Your task to perform on an android device: Search for "acer nitro" on costco, select the first entry, add it to the cart, then select checkout. Image 0: 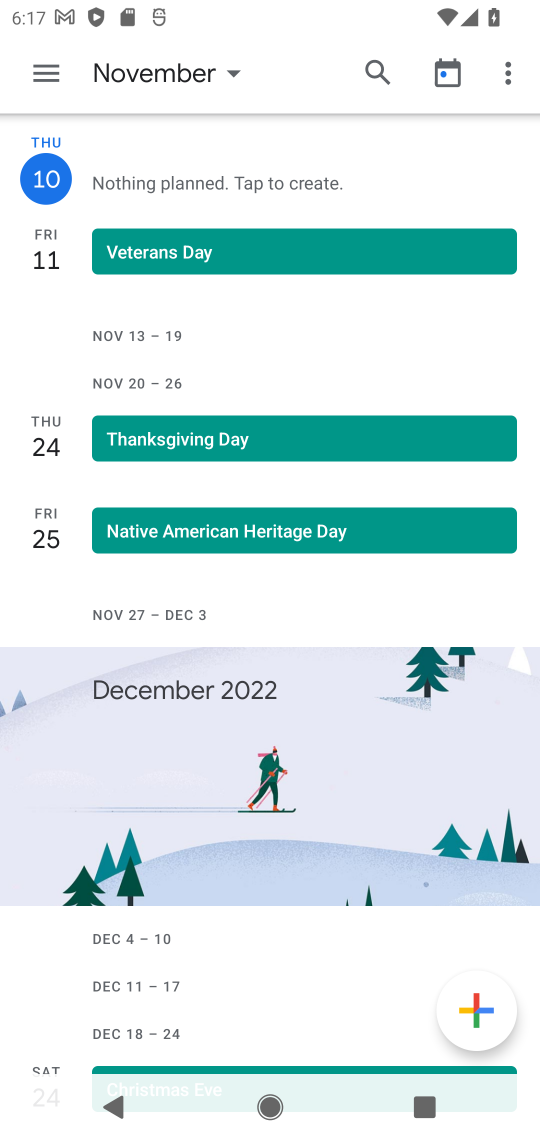
Step 0: press home button
Your task to perform on an android device: Search for "acer nitro" on costco, select the first entry, add it to the cart, then select checkout. Image 1: 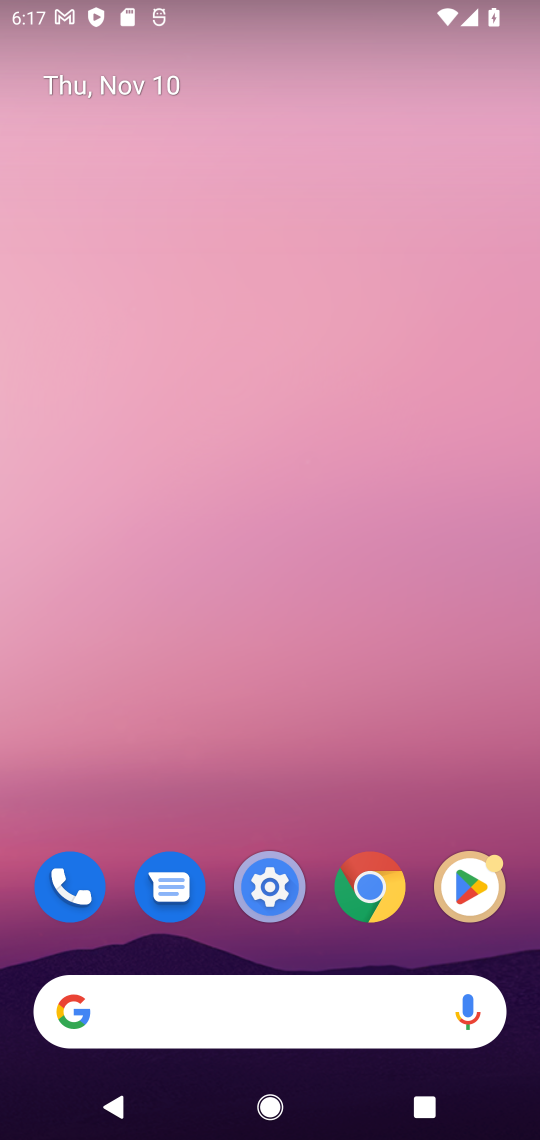
Step 1: click (150, 1004)
Your task to perform on an android device: Search for "acer nitro" on costco, select the first entry, add it to the cart, then select checkout. Image 2: 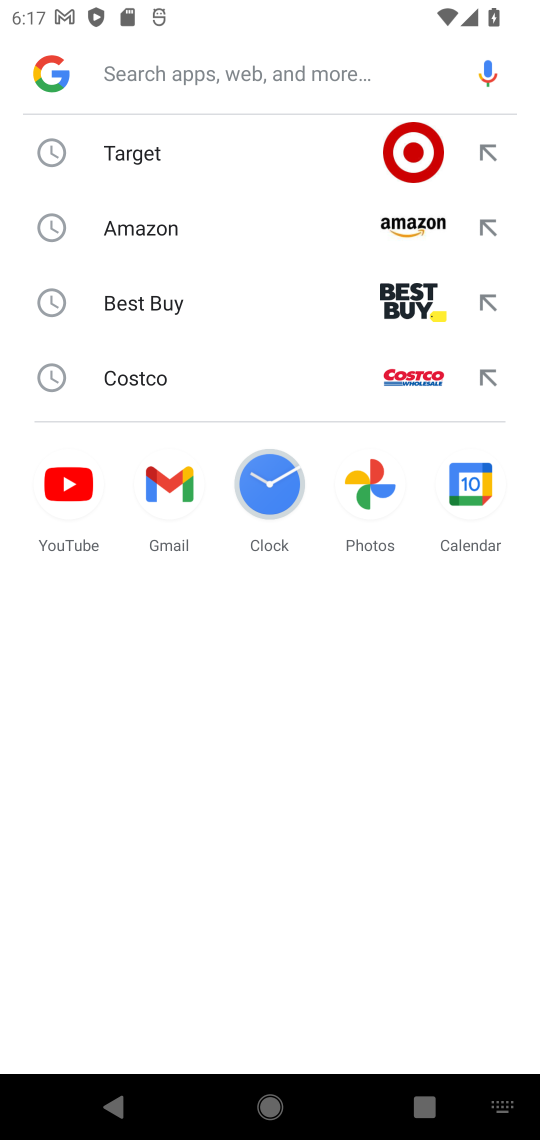
Step 2: click (125, 374)
Your task to perform on an android device: Search for "acer nitro" on costco, select the first entry, add it to the cart, then select checkout. Image 3: 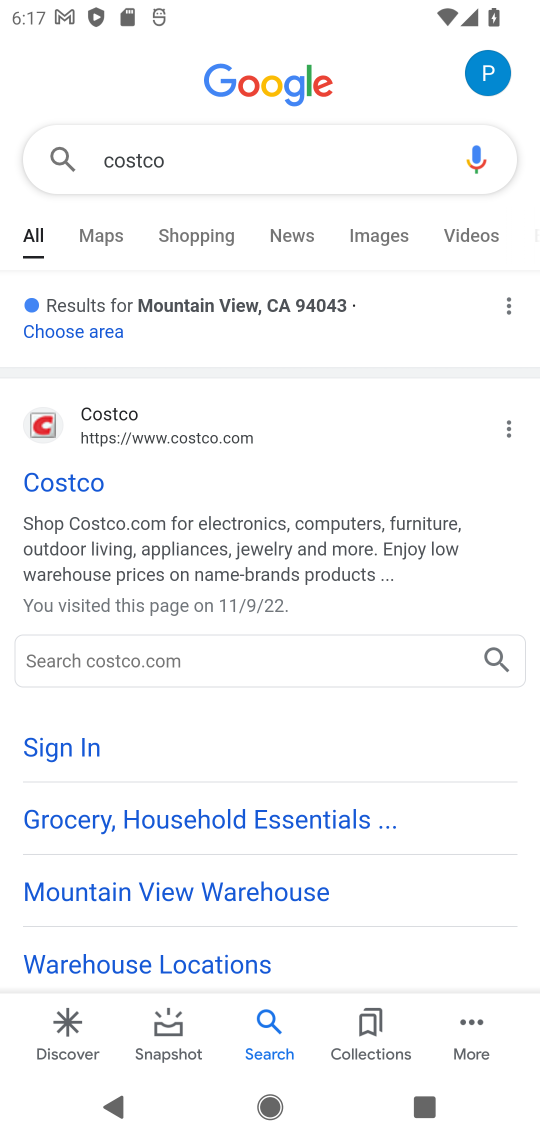
Step 3: click (69, 447)
Your task to perform on an android device: Search for "acer nitro" on costco, select the first entry, add it to the cart, then select checkout. Image 4: 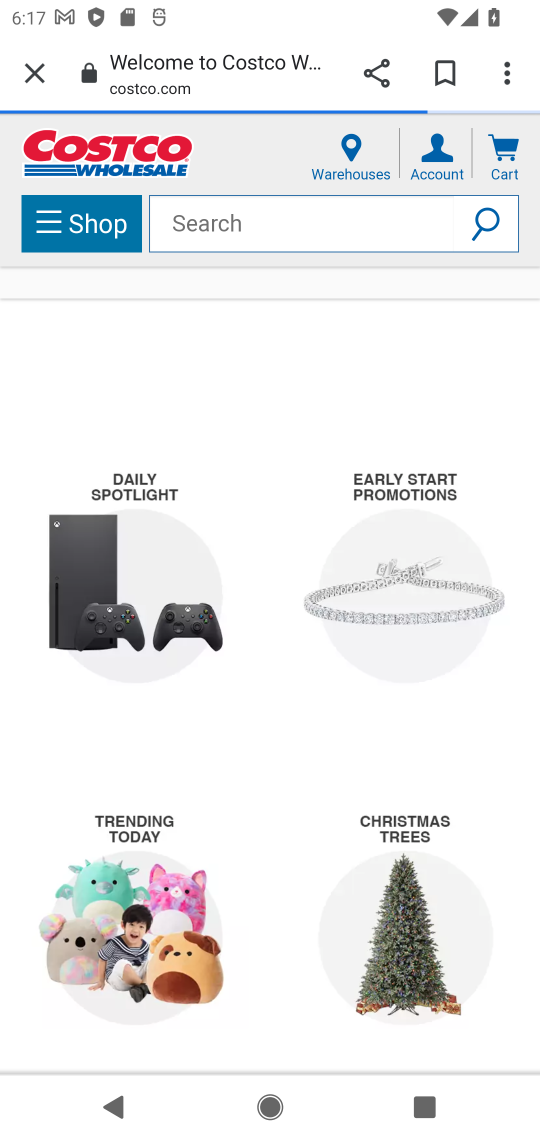
Step 4: click (173, 218)
Your task to perform on an android device: Search for "acer nitro" on costco, select the first entry, add it to the cart, then select checkout. Image 5: 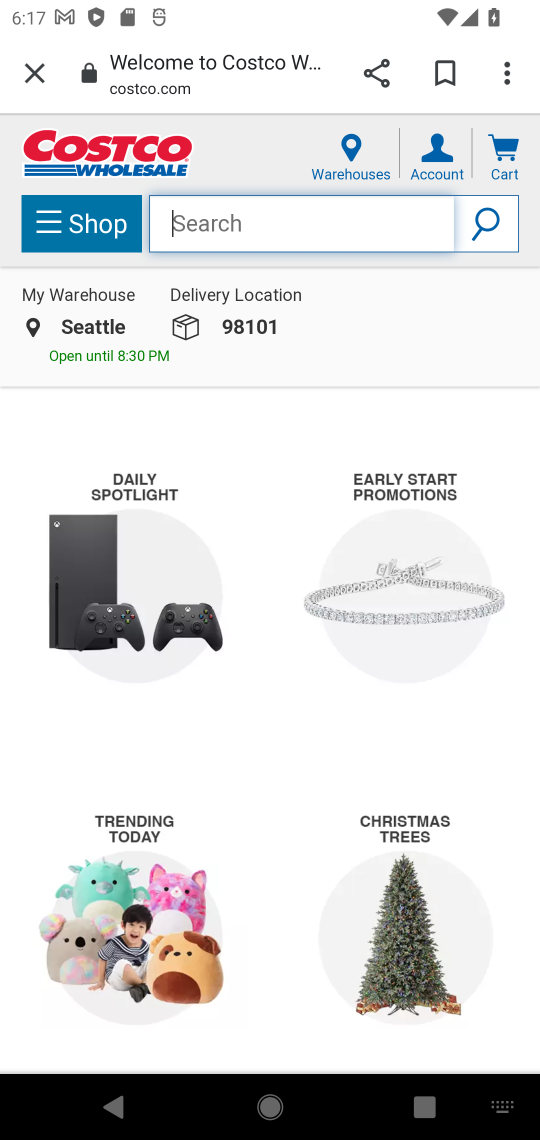
Step 5: type "acer nitro"
Your task to perform on an android device: Search for "acer nitro" on costco, select the first entry, add it to the cart, then select checkout. Image 6: 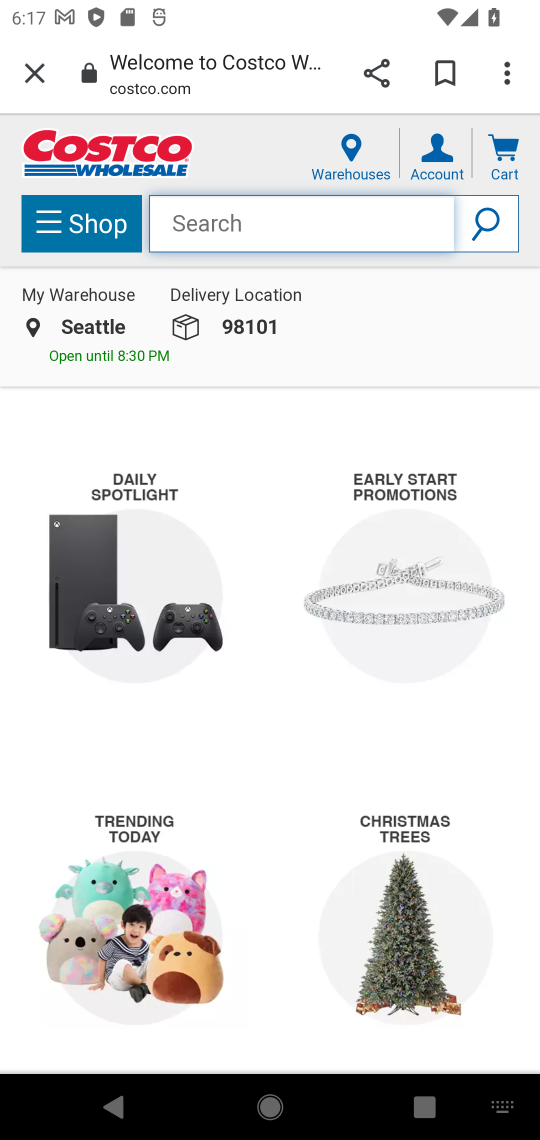
Step 6: type ""
Your task to perform on an android device: Search for "acer nitro" on costco, select the first entry, add it to the cart, then select checkout. Image 7: 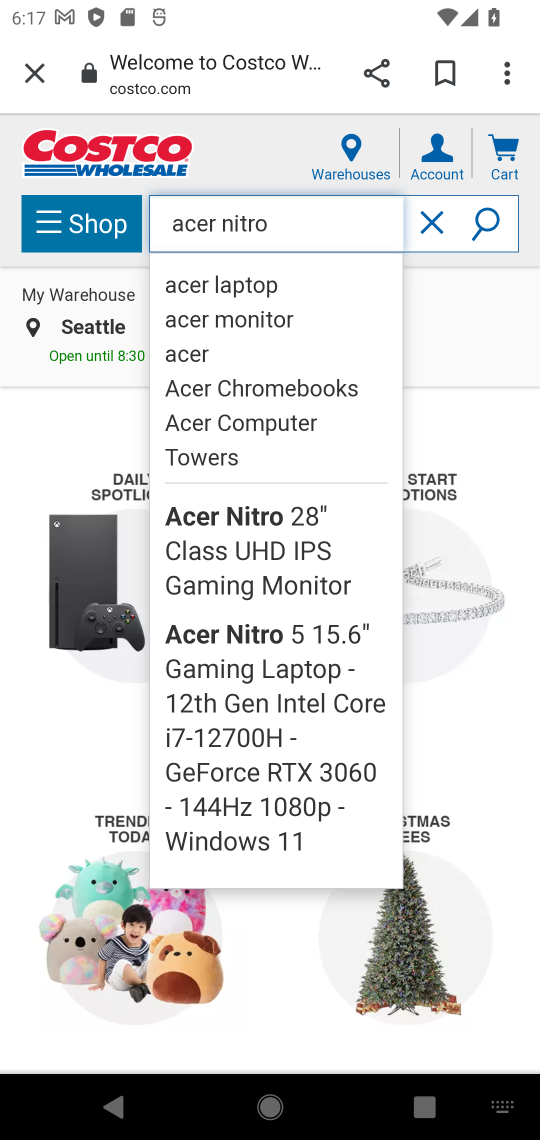
Step 7: click (476, 226)
Your task to perform on an android device: Search for "acer nitro" on costco, select the first entry, add it to the cart, then select checkout. Image 8: 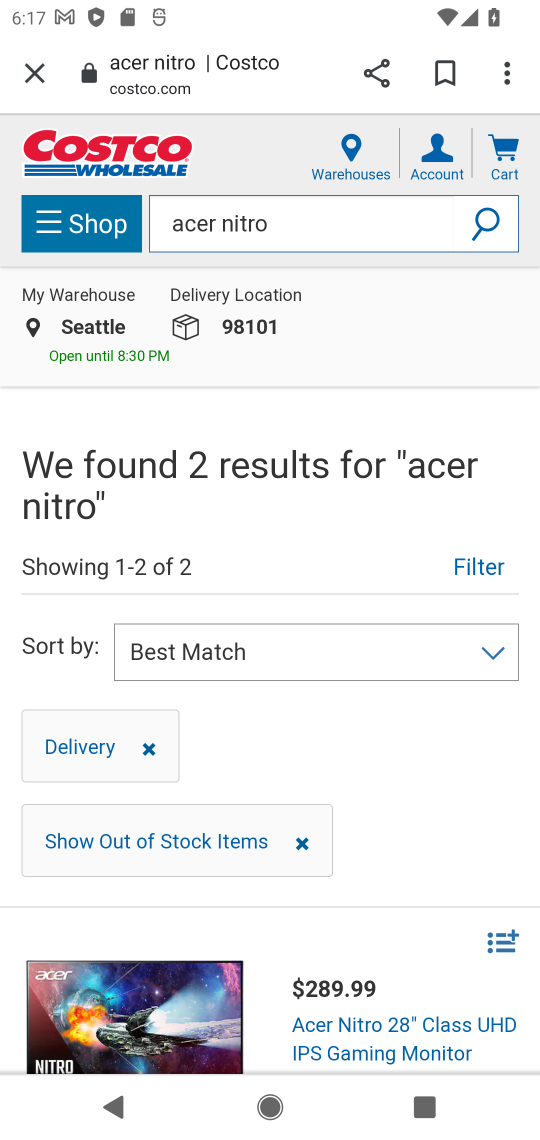
Step 8: drag from (367, 844) to (352, 381)
Your task to perform on an android device: Search for "acer nitro" on costco, select the first entry, add it to the cart, then select checkout. Image 9: 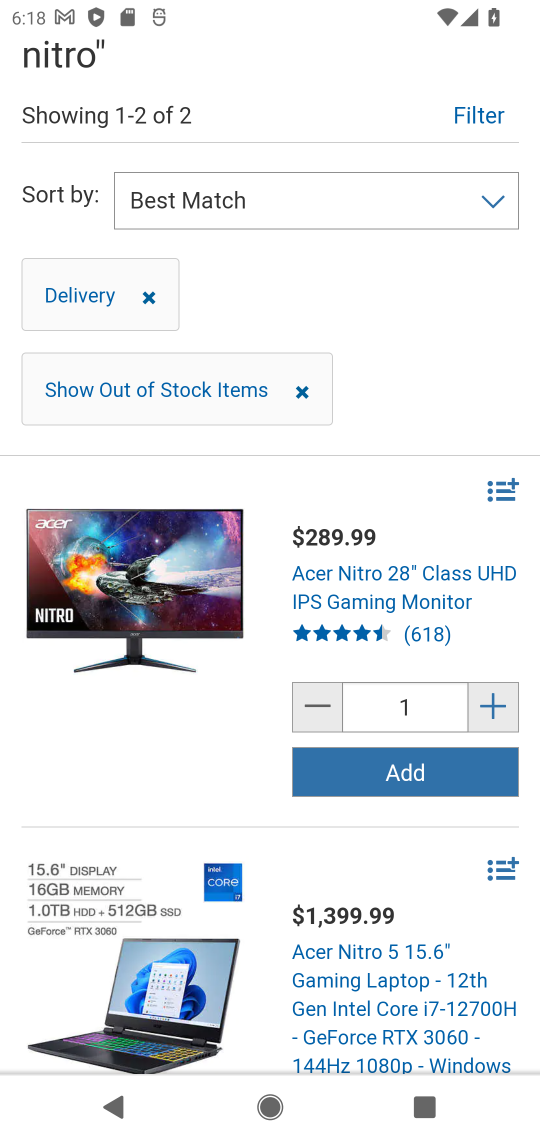
Step 9: click (404, 773)
Your task to perform on an android device: Search for "acer nitro" on costco, select the first entry, add it to the cart, then select checkout. Image 10: 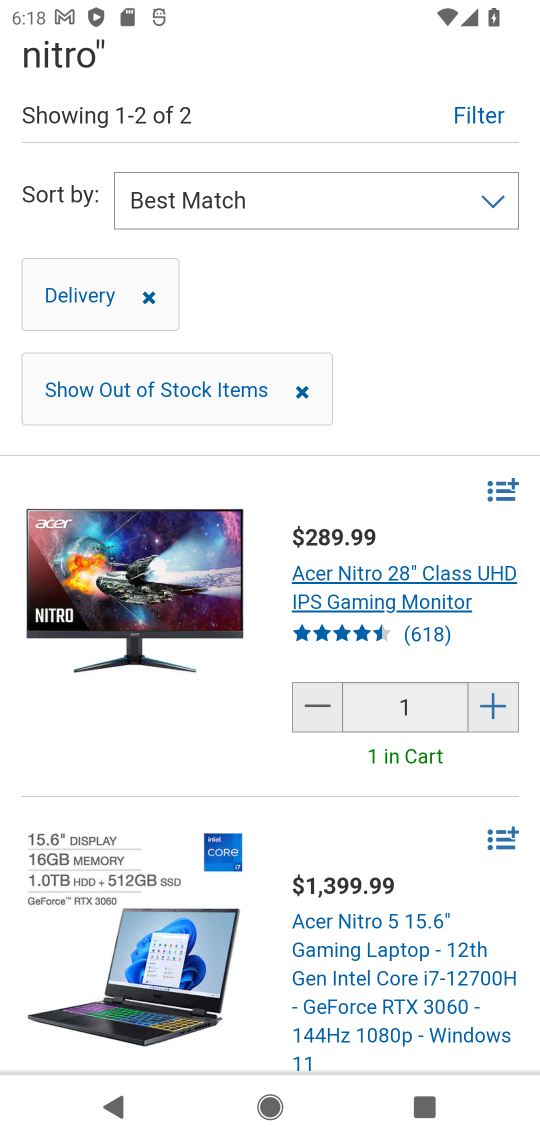
Step 10: drag from (425, 255) to (453, 709)
Your task to perform on an android device: Search for "acer nitro" on costco, select the first entry, add it to the cart, then select checkout. Image 11: 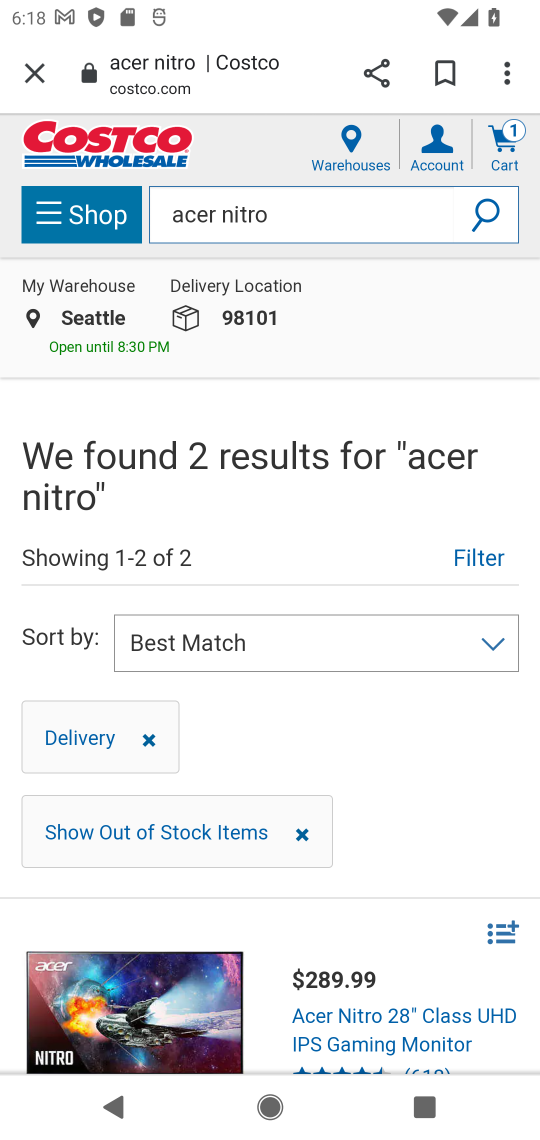
Step 11: click (509, 136)
Your task to perform on an android device: Search for "acer nitro" on costco, select the first entry, add it to the cart, then select checkout. Image 12: 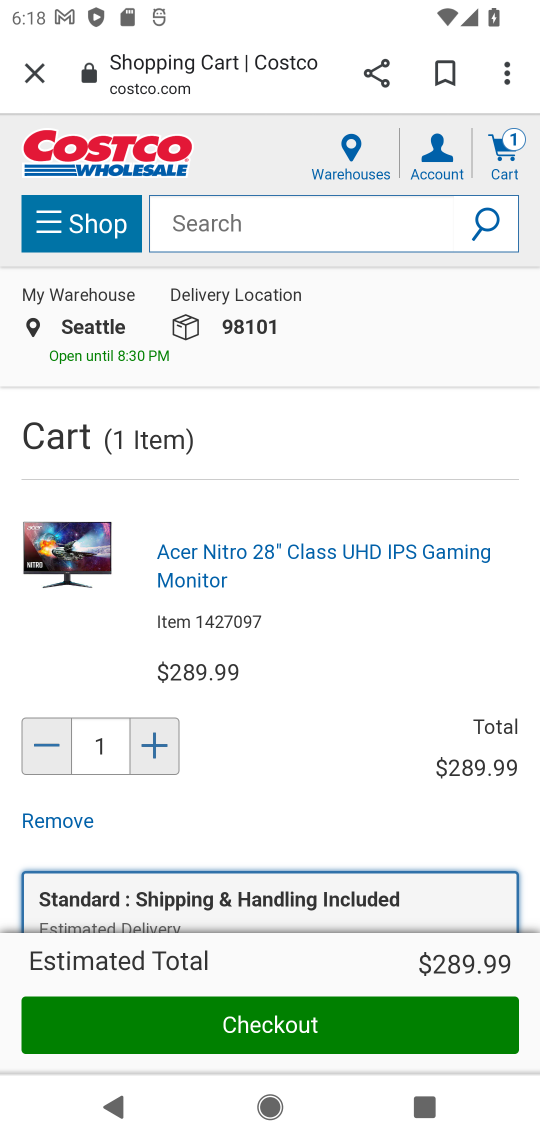
Step 12: click (246, 1019)
Your task to perform on an android device: Search for "acer nitro" on costco, select the first entry, add it to the cart, then select checkout. Image 13: 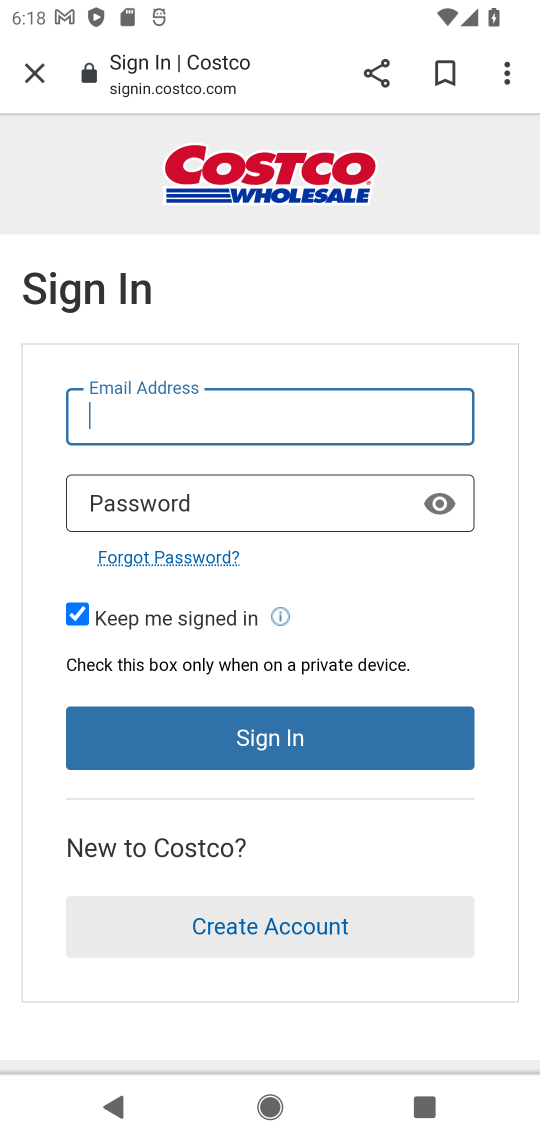
Step 13: task complete